Your task to perform on an android device: Go to wifi settings Image 0: 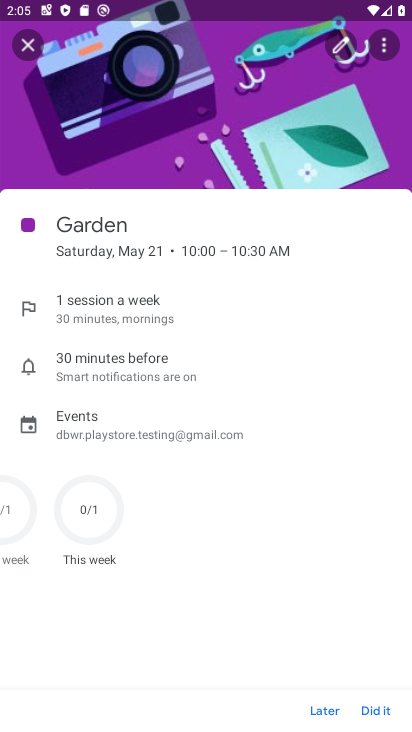
Step 0: press back button
Your task to perform on an android device: Go to wifi settings Image 1: 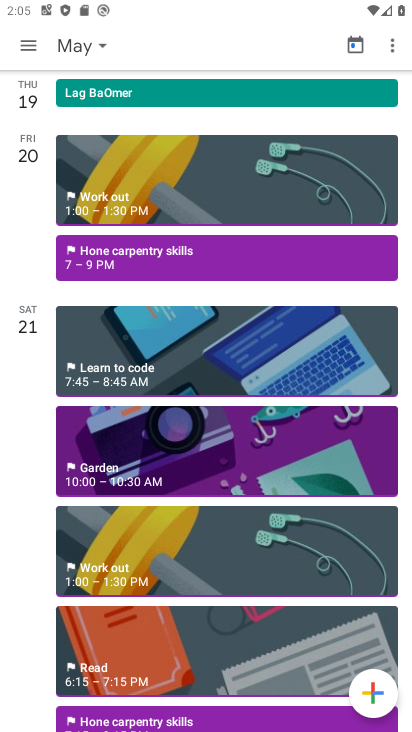
Step 1: drag from (92, 6) to (88, 509)
Your task to perform on an android device: Go to wifi settings Image 2: 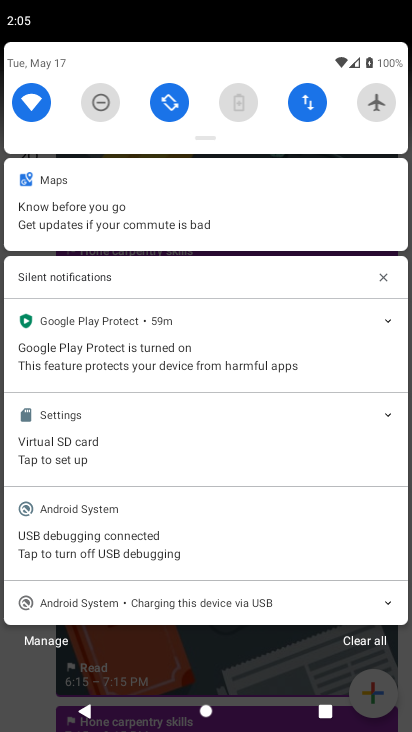
Step 2: click (29, 102)
Your task to perform on an android device: Go to wifi settings Image 3: 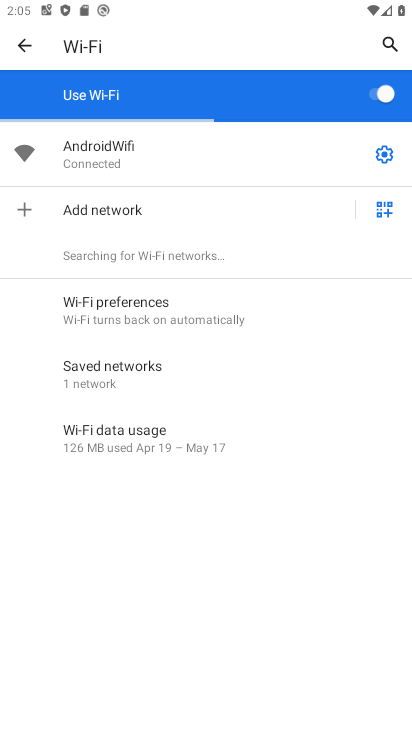
Step 3: task complete